Your task to perform on an android device: empty trash in the gmail app Image 0: 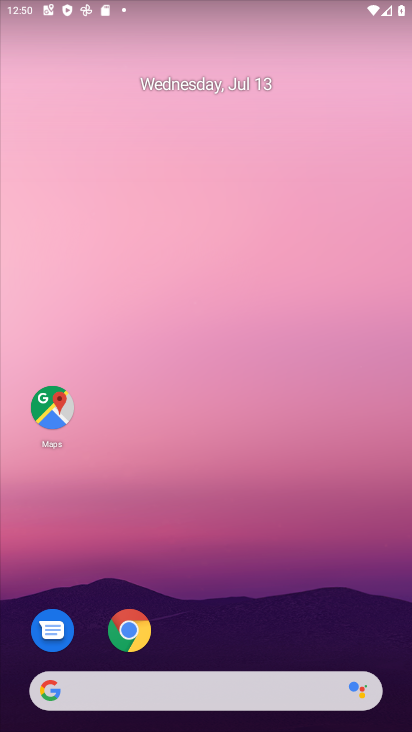
Step 0: drag from (389, 635) to (195, 57)
Your task to perform on an android device: empty trash in the gmail app Image 1: 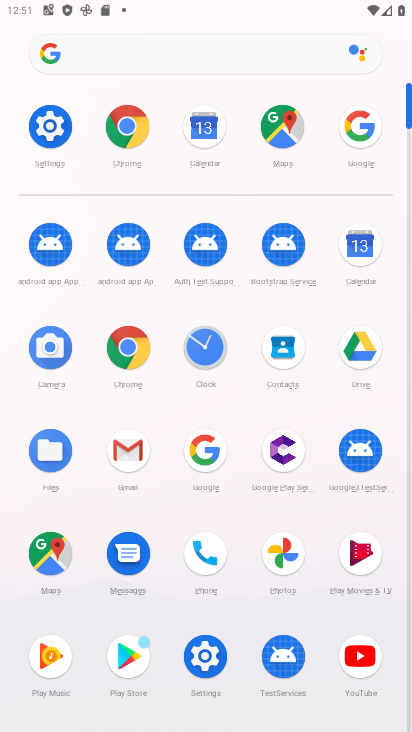
Step 1: click (127, 468)
Your task to perform on an android device: empty trash in the gmail app Image 2: 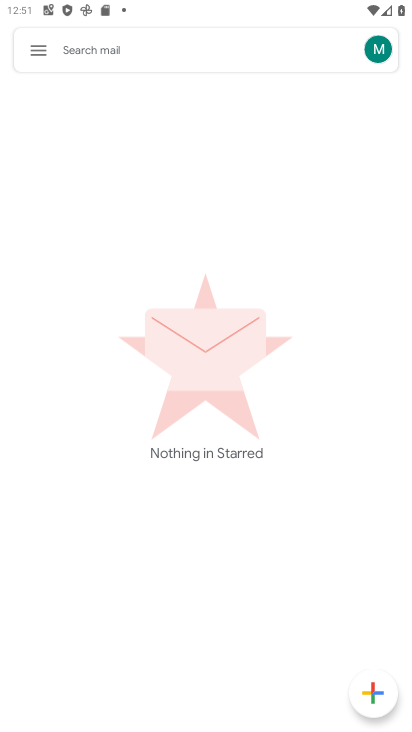
Step 2: click (32, 47)
Your task to perform on an android device: empty trash in the gmail app Image 3: 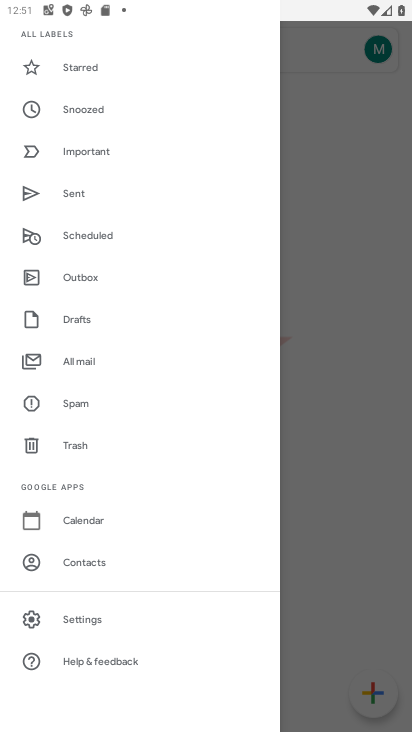
Step 3: click (67, 448)
Your task to perform on an android device: empty trash in the gmail app Image 4: 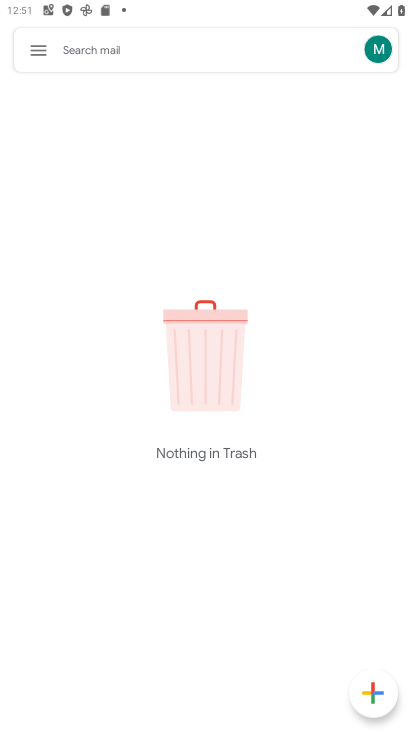
Step 4: task complete